Your task to perform on an android device: clear all cookies in the chrome app Image 0: 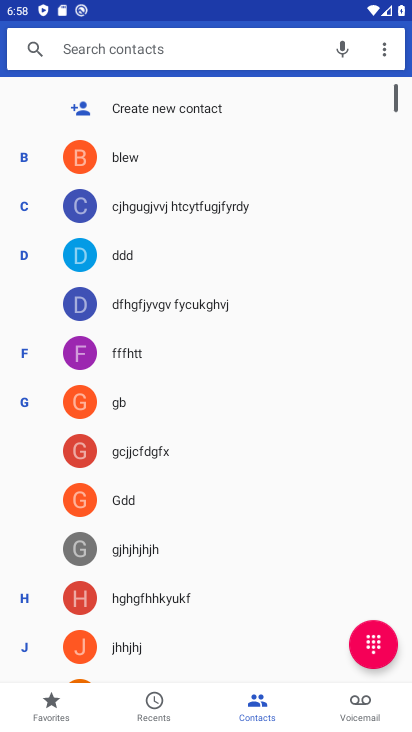
Step 0: press home button
Your task to perform on an android device: clear all cookies in the chrome app Image 1: 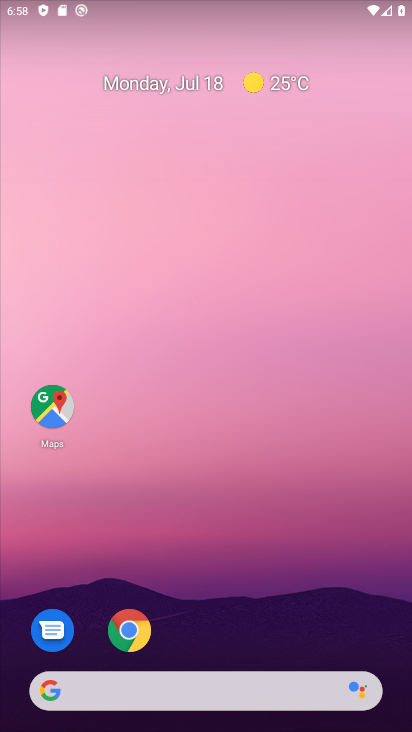
Step 1: click (124, 635)
Your task to perform on an android device: clear all cookies in the chrome app Image 2: 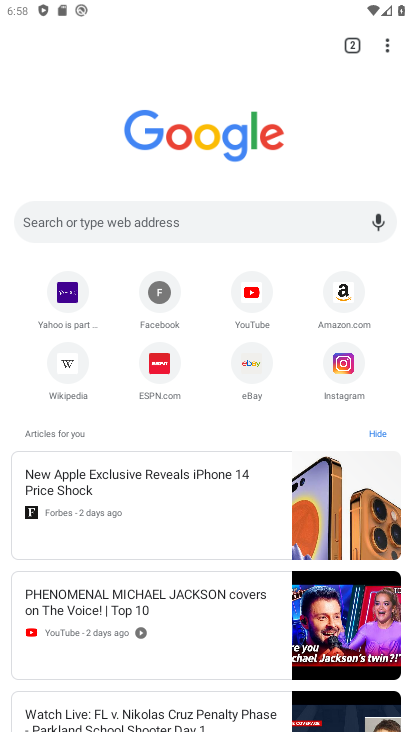
Step 2: click (383, 52)
Your task to perform on an android device: clear all cookies in the chrome app Image 3: 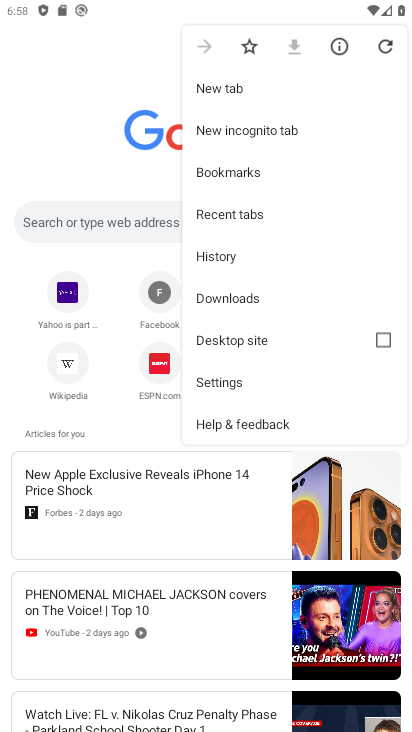
Step 3: click (223, 258)
Your task to perform on an android device: clear all cookies in the chrome app Image 4: 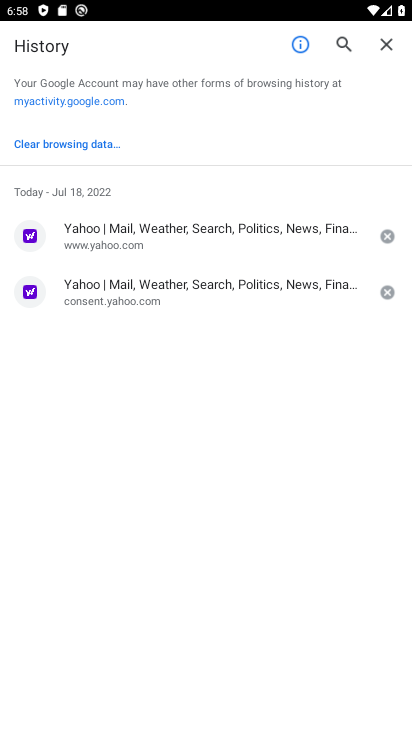
Step 4: click (72, 138)
Your task to perform on an android device: clear all cookies in the chrome app Image 5: 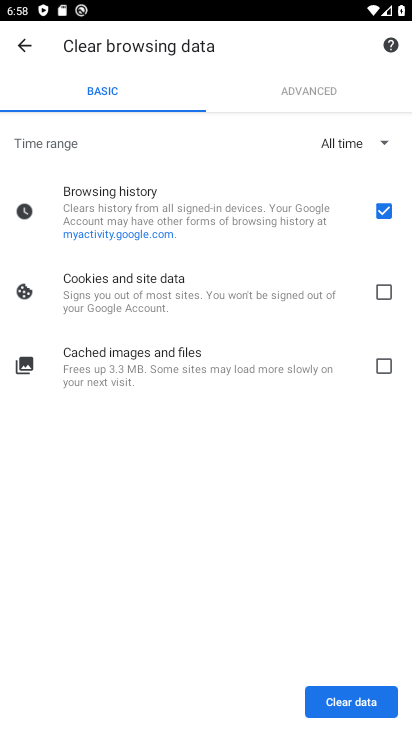
Step 5: click (390, 294)
Your task to perform on an android device: clear all cookies in the chrome app Image 6: 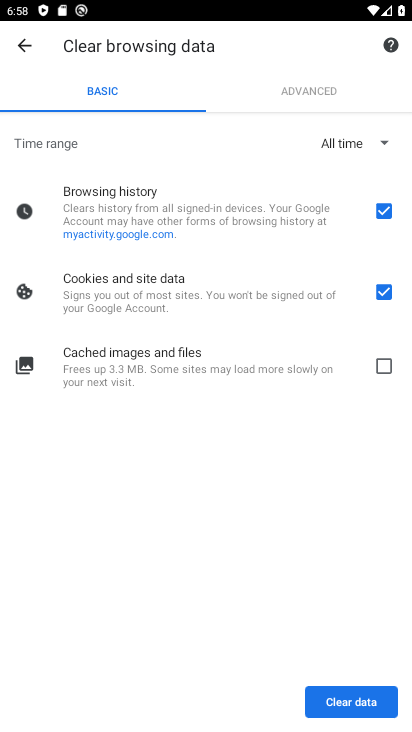
Step 6: click (380, 211)
Your task to perform on an android device: clear all cookies in the chrome app Image 7: 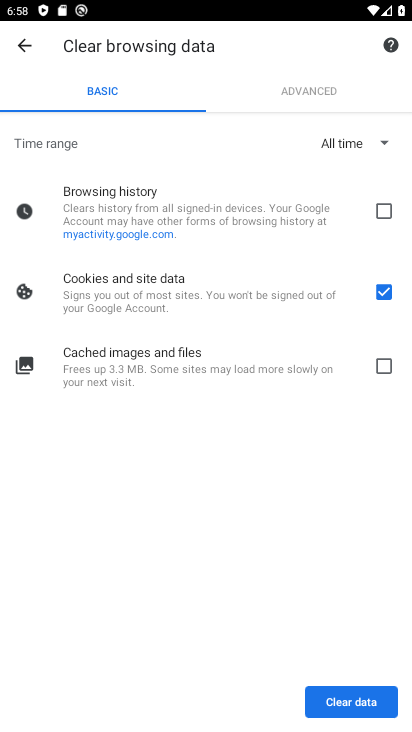
Step 7: click (353, 699)
Your task to perform on an android device: clear all cookies in the chrome app Image 8: 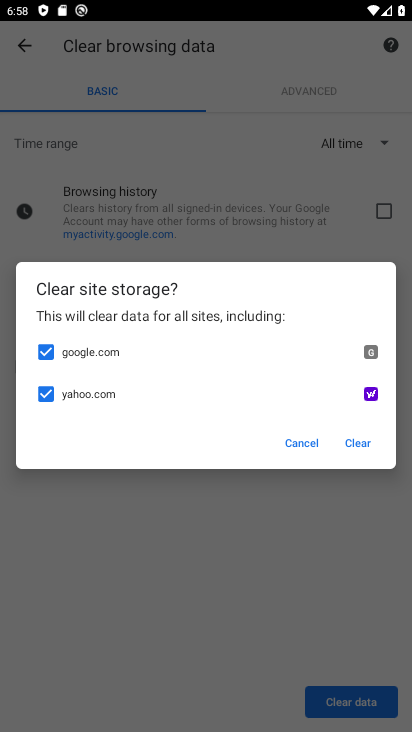
Step 8: click (352, 445)
Your task to perform on an android device: clear all cookies in the chrome app Image 9: 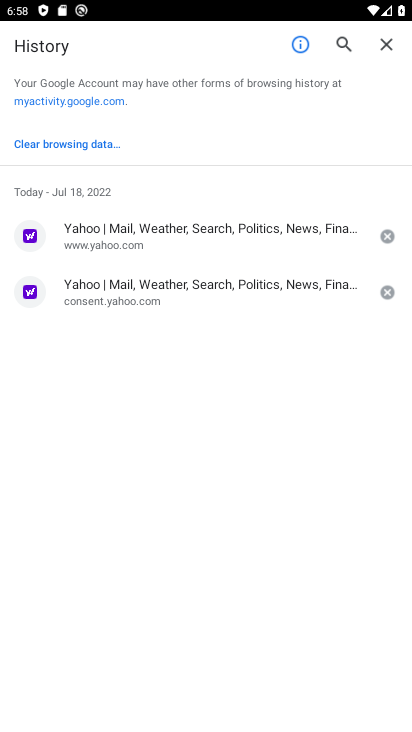
Step 9: task complete